Your task to perform on an android device: Open Youtube and go to the subscriptions tab Image 0: 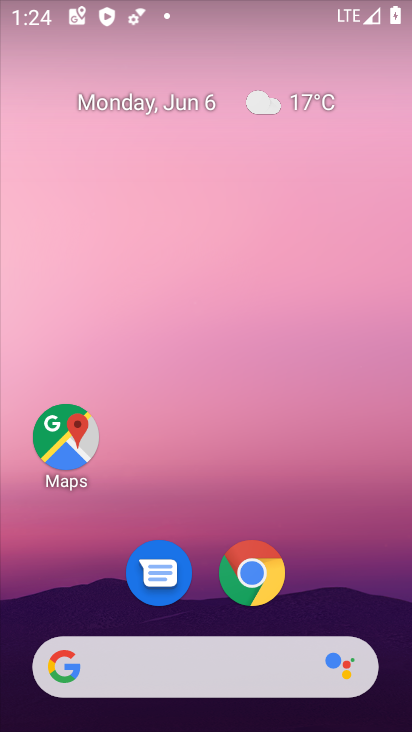
Step 0: drag from (374, 598) to (358, 198)
Your task to perform on an android device: Open Youtube and go to the subscriptions tab Image 1: 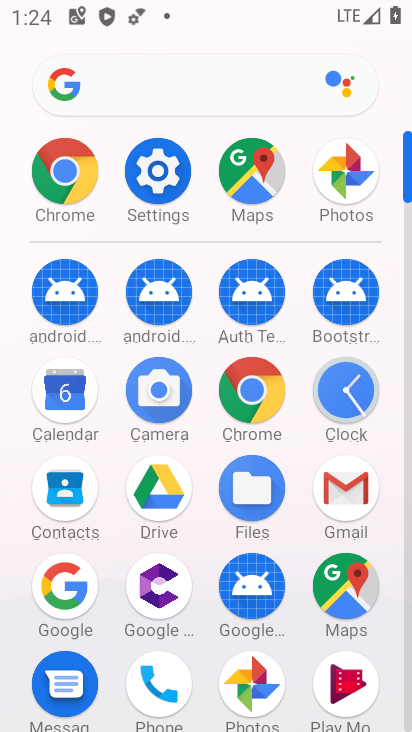
Step 1: drag from (298, 637) to (295, 344)
Your task to perform on an android device: Open Youtube and go to the subscriptions tab Image 2: 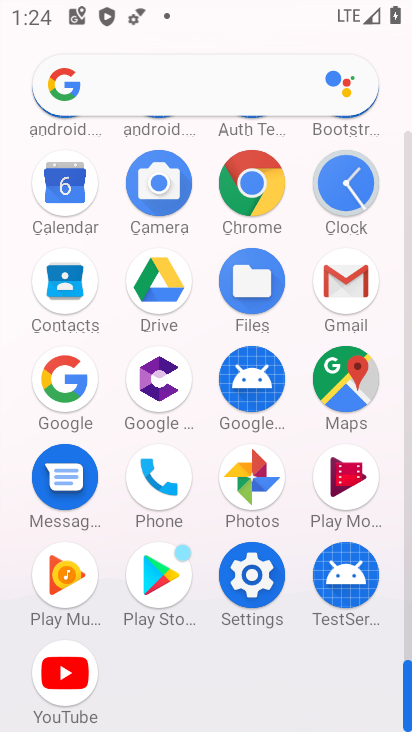
Step 2: click (76, 683)
Your task to perform on an android device: Open Youtube and go to the subscriptions tab Image 3: 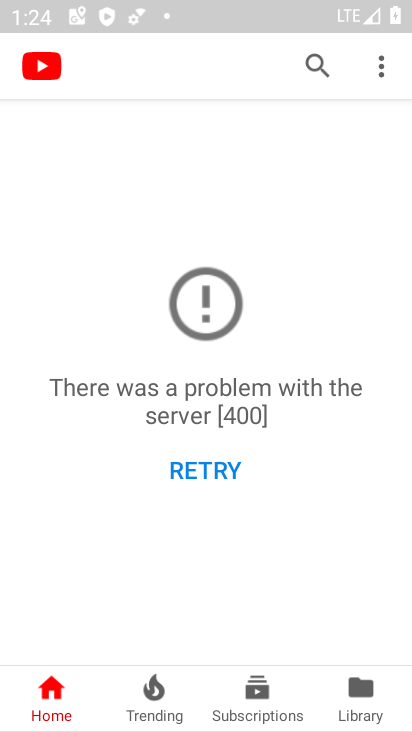
Step 3: click (255, 696)
Your task to perform on an android device: Open Youtube and go to the subscriptions tab Image 4: 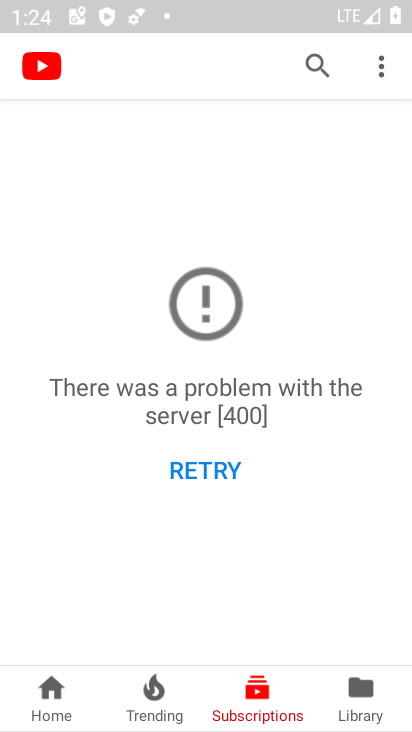
Step 4: task complete